Your task to perform on an android device: turn off data saver in the chrome app Image 0: 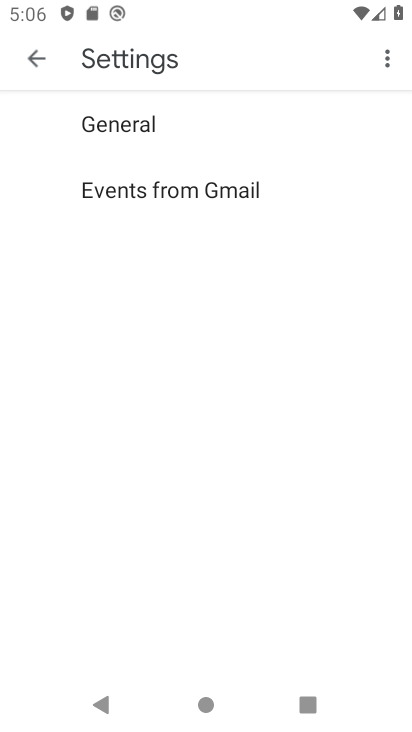
Step 0: press home button
Your task to perform on an android device: turn off data saver in the chrome app Image 1: 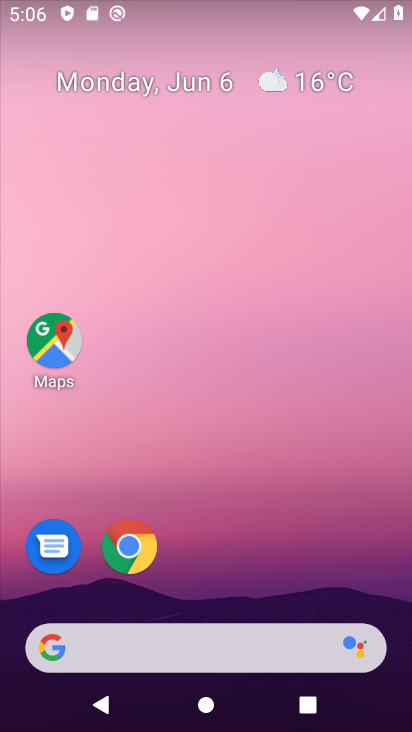
Step 1: click (127, 546)
Your task to perform on an android device: turn off data saver in the chrome app Image 2: 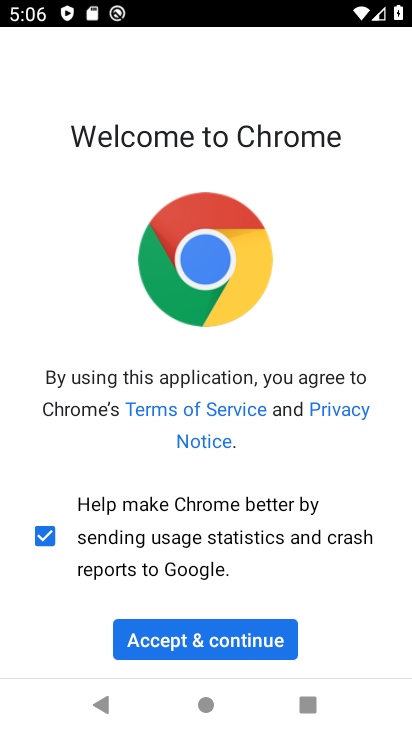
Step 2: click (189, 644)
Your task to perform on an android device: turn off data saver in the chrome app Image 3: 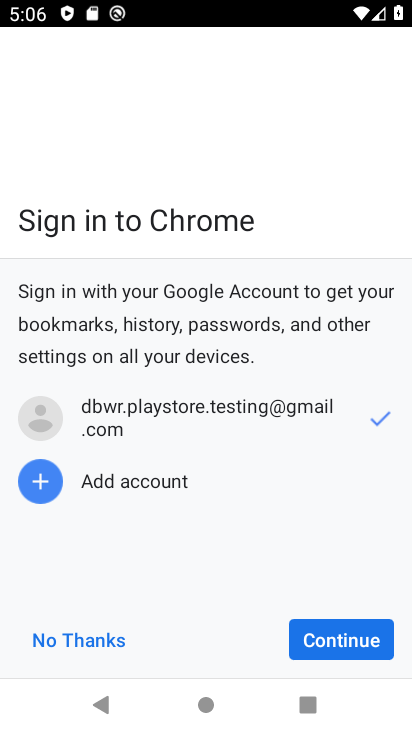
Step 3: click (321, 644)
Your task to perform on an android device: turn off data saver in the chrome app Image 4: 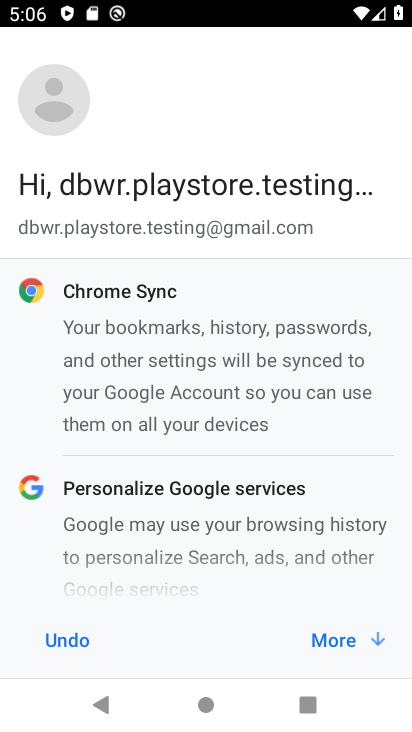
Step 4: click (326, 644)
Your task to perform on an android device: turn off data saver in the chrome app Image 5: 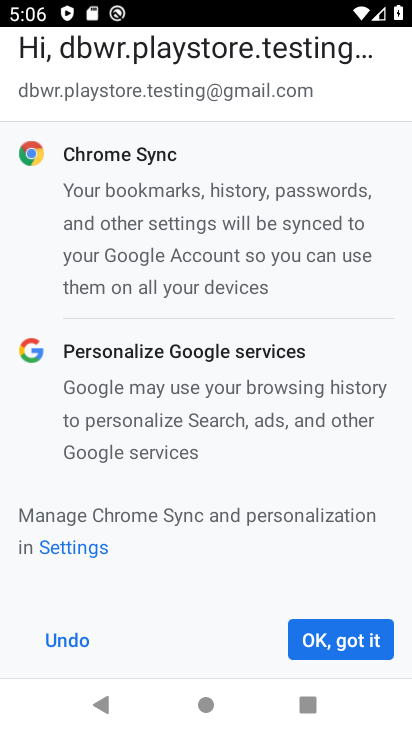
Step 5: click (325, 634)
Your task to perform on an android device: turn off data saver in the chrome app Image 6: 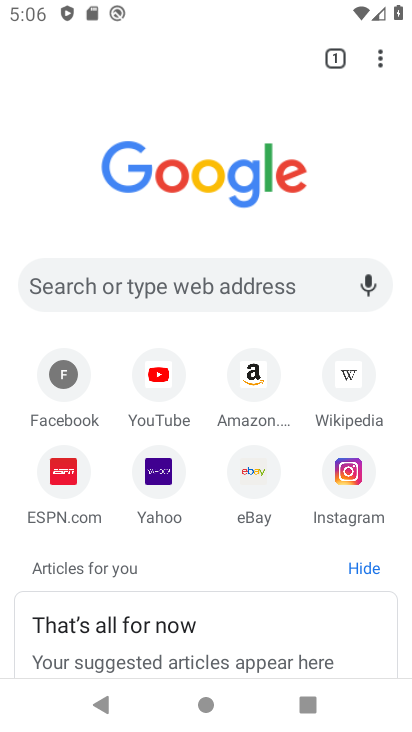
Step 6: click (382, 64)
Your task to perform on an android device: turn off data saver in the chrome app Image 7: 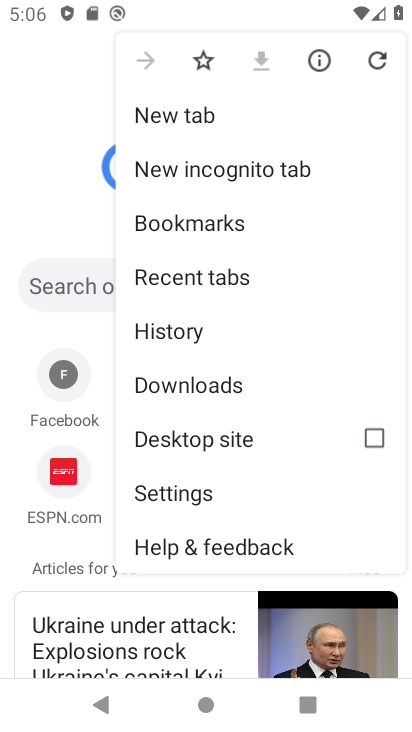
Step 7: click (170, 491)
Your task to perform on an android device: turn off data saver in the chrome app Image 8: 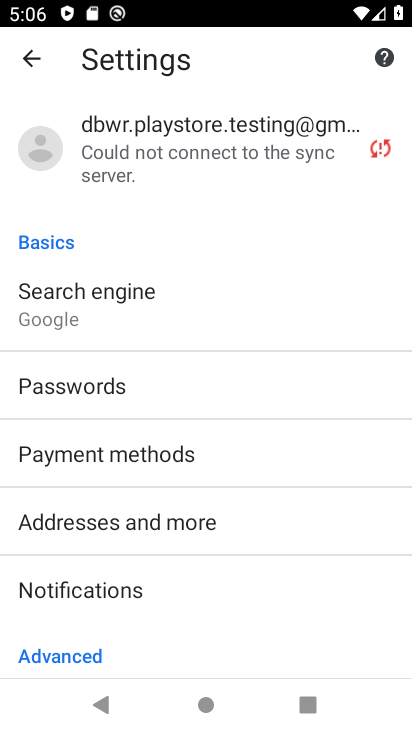
Step 8: drag from (108, 669) to (132, 294)
Your task to perform on an android device: turn off data saver in the chrome app Image 9: 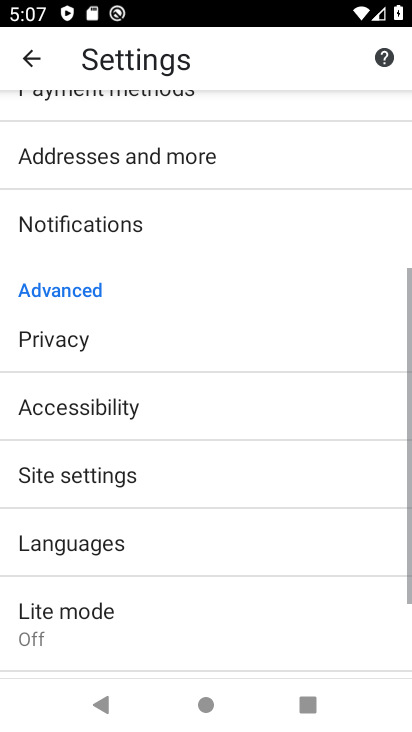
Step 9: drag from (131, 645) to (130, 331)
Your task to perform on an android device: turn off data saver in the chrome app Image 10: 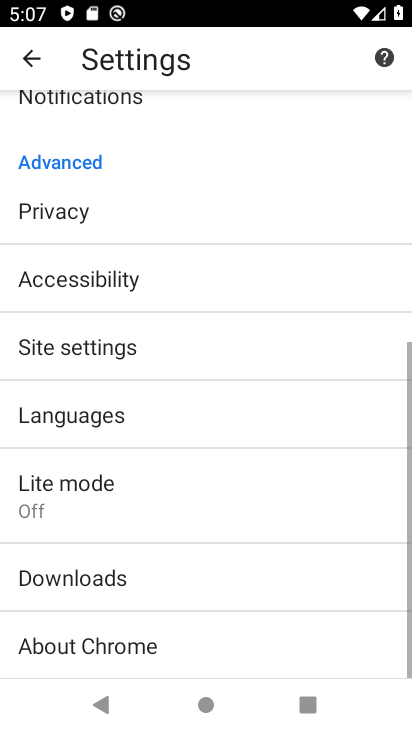
Step 10: click (83, 480)
Your task to perform on an android device: turn off data saver in the chrome app Image 11: 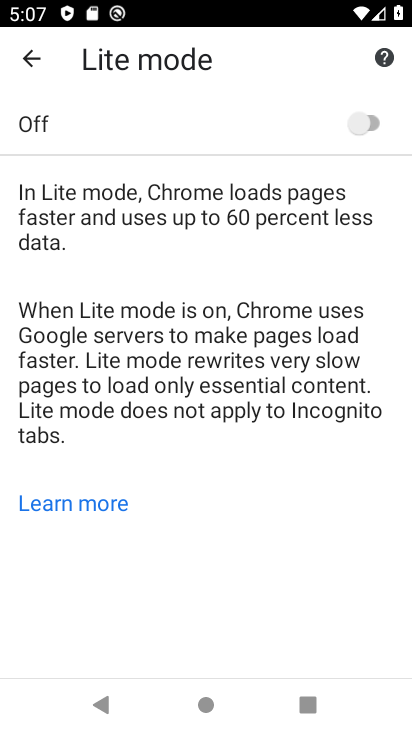
Step 11: task complete